Your task to perform on an android device: Open sound settings Image 0: 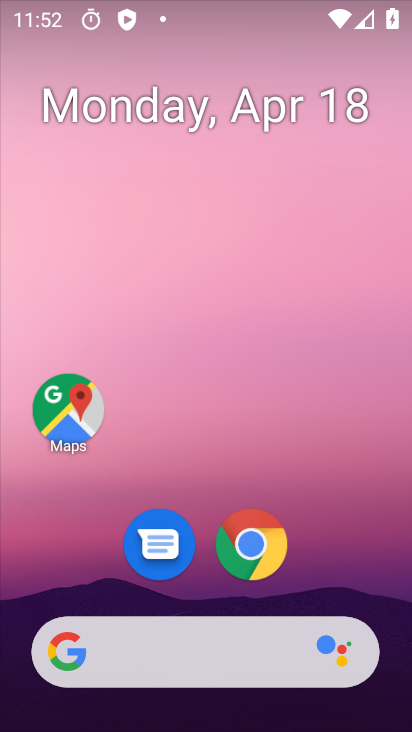
Step 0: drag from (341, 483) to (350, 11)
Your task to perform on an android device: Open sound settings Image 1: 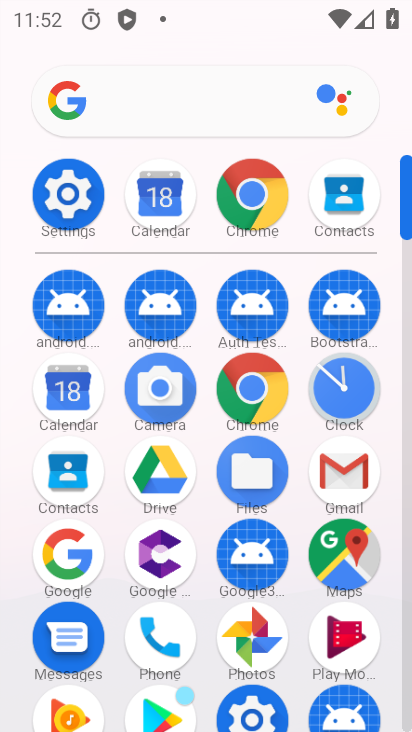
Step 1: click (65, 205)
Your task to perform on an android device: Open sound settings Image 2: 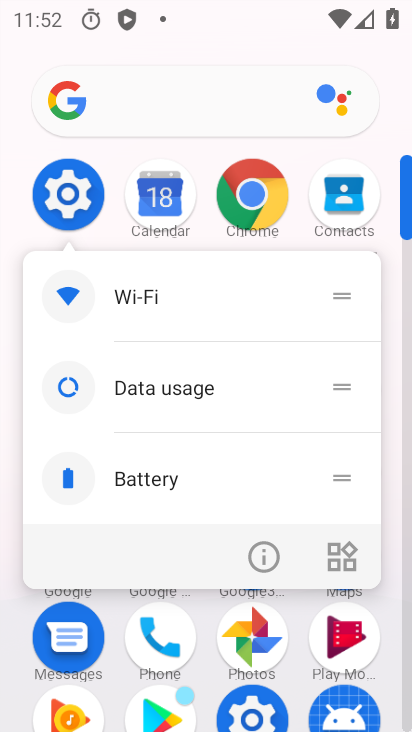
Step 2: click (65, 205)
Your task to perform on an android device: Open sound settings Image 3: 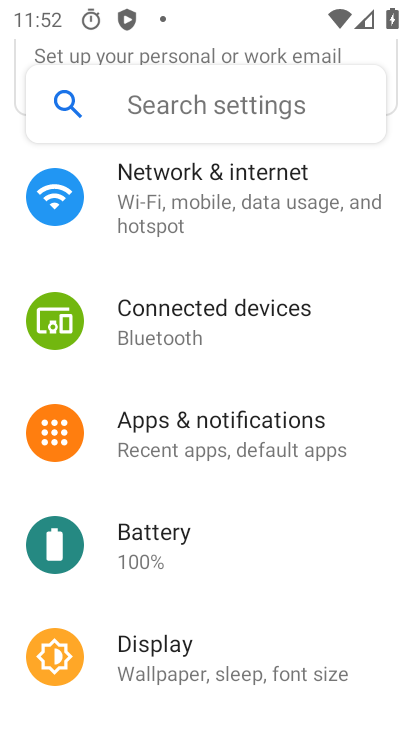
Step 3: drag from (260, 535) to (267, 229)
Your task to perform on an android device: Open sound settings Image 4: 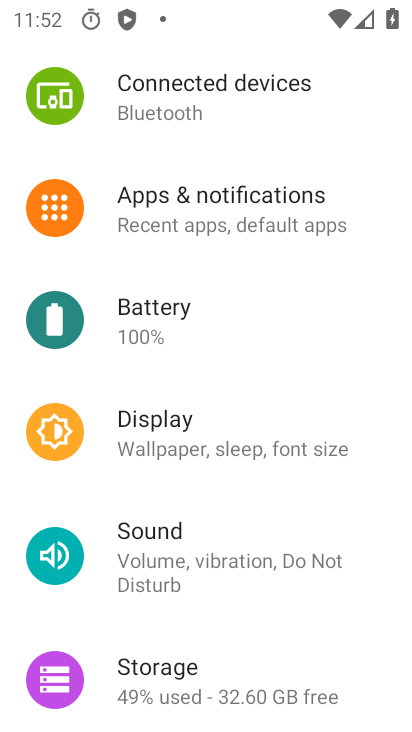
Step 4: click (144, 542)
Your task to perform on an android device: Open sound settings Image 5: 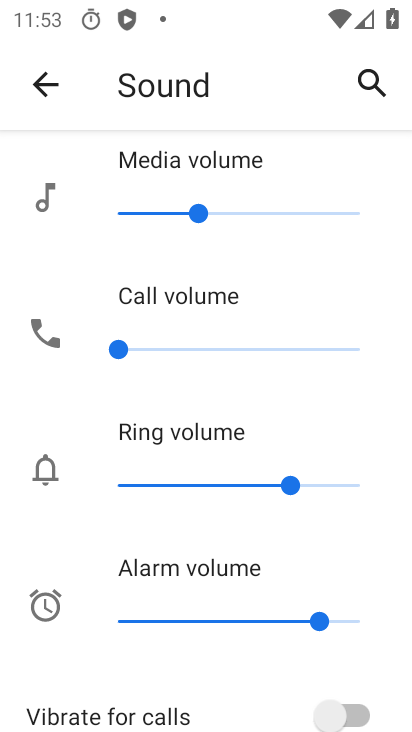
Step 5: task complete